Your task to perform on an android device: Go to settings Image 0: 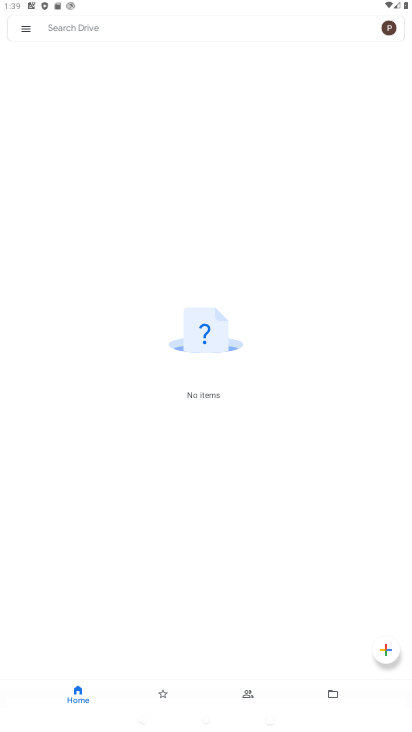
Step 0: press home button
Your task to perform on an android device: Go to settings Image 1: 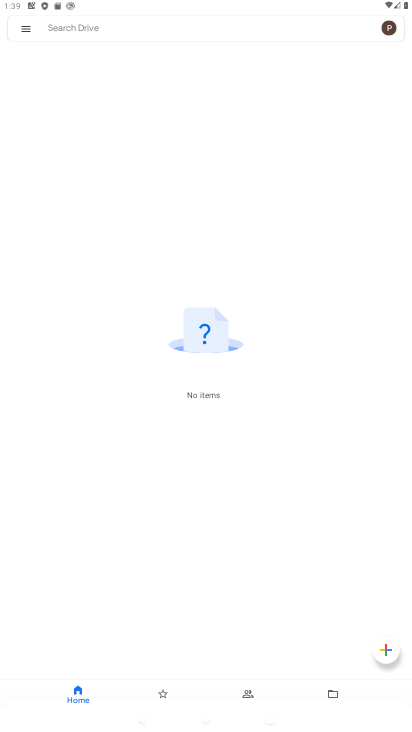
Step 1: press home button
Your task to perform on an android device: Go to settings Image 2: 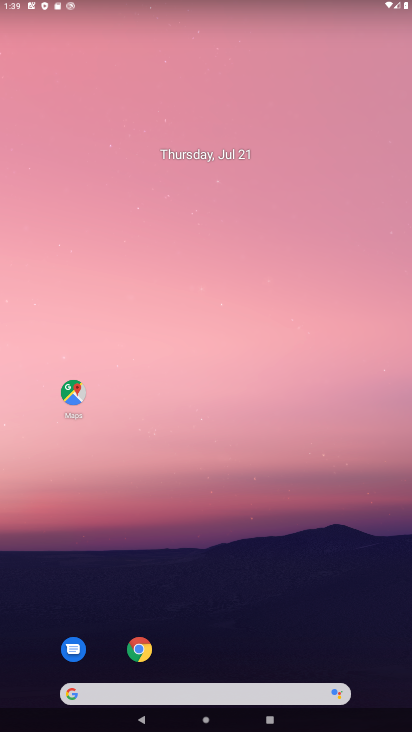
Step 2: drag from (250, 726) to (246, 89)
Your task to perform on an android device: Go to settings Image 3: 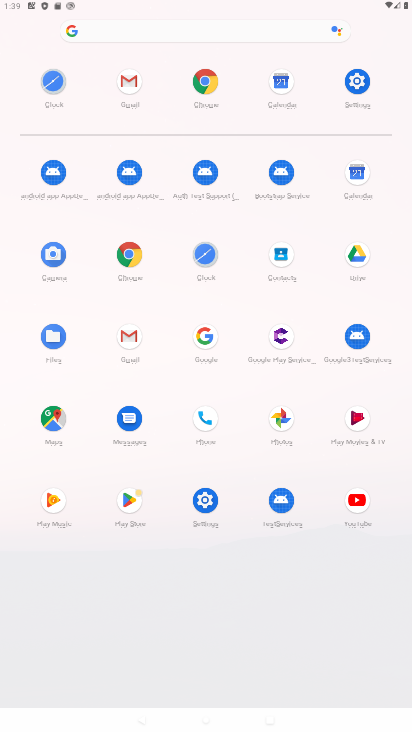
Step 3: click (355, 82)
Your task to perform on an android device: Go to settings Image 4: 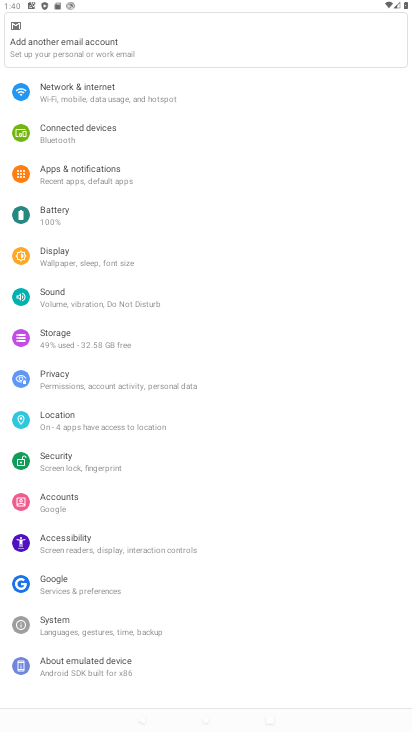
Step 4: task complete